Your task to perform on an android device: toggle javascript in the chrome app Image 0: 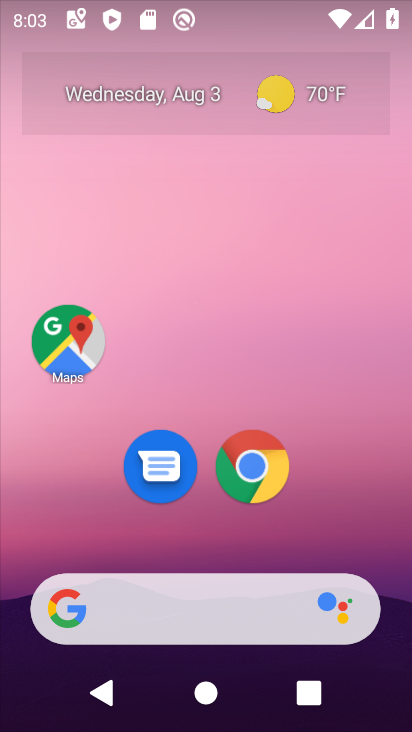
Step 0: drag from (363, 473) to (371, 44)
Your task to perform on an android device: toggle javascript in the chrome app Image 1: 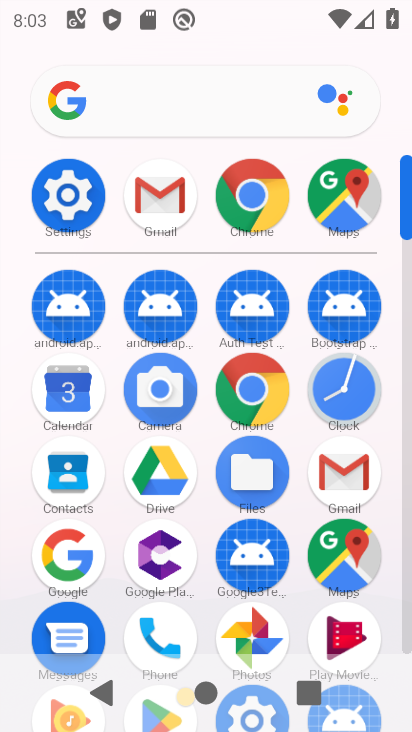
Step 1: click (249, 388)
Your task to perform on an android device: toggle javascript in the chrome app Image 2: 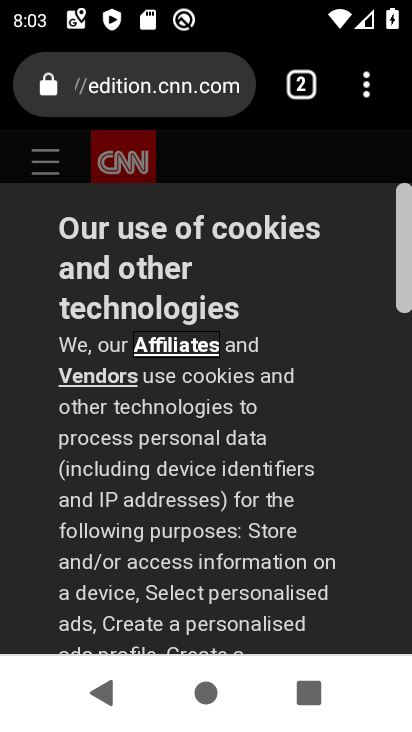
Step 2: drag from (370, 80) to (179, 507)
Your task to perform on an android device: toggle javascript in the chrome app Image 3: 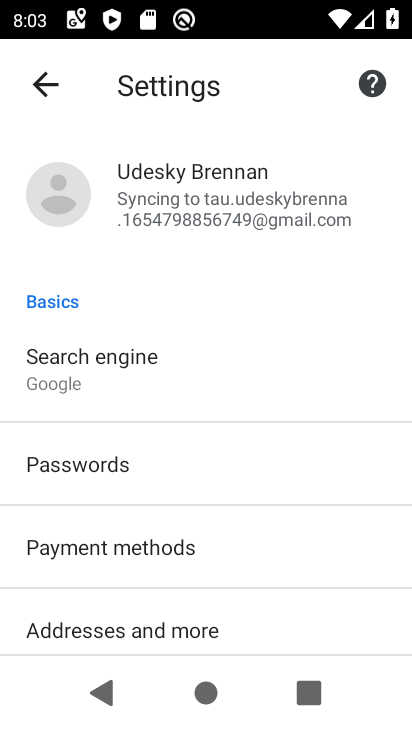
Step 3: drag from (270, 500) to (325, 63)
Your task to perform on an android device: toggle javascript in the chrome app Image 4: 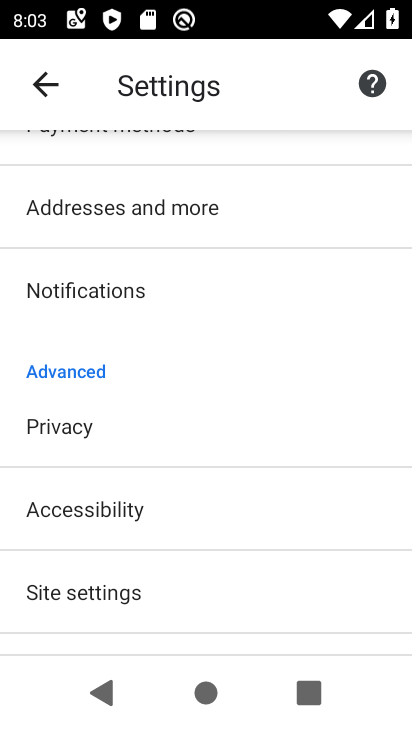
Step 4: drag from (280, 494) to (300, 278)
Your task to perform on an android device: toggle javascript in the chrome app Image 5: 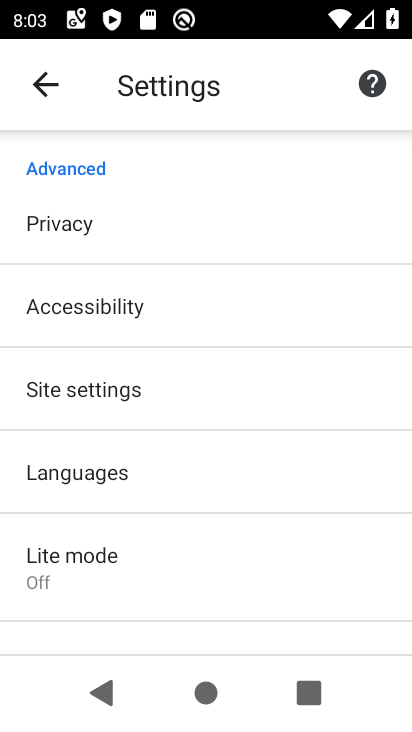
Step 5: click (114, 404)
Your task to perform on an android device: toggle javascript in the chrome app Image 6: 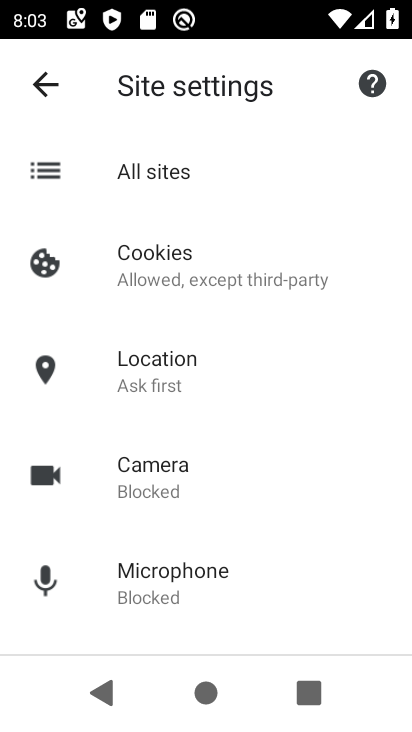
Step 6: drag from (310, 533) to (333, 272)
Your task to perform on an android device: toggle javascript in the chrome app Image 7: 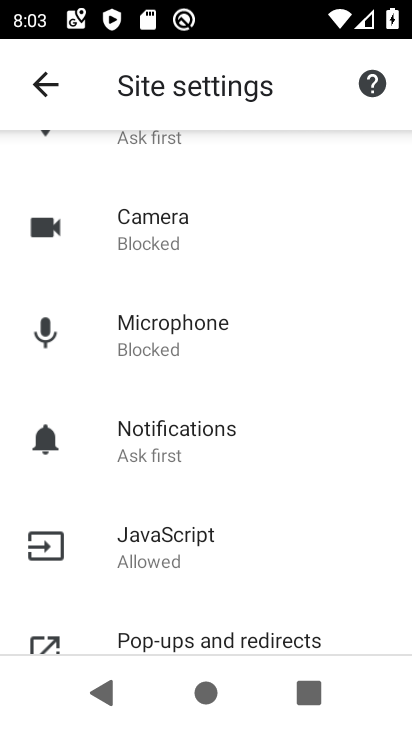
Step 7: click (157, 550)
Your task to perform on an android device: toggle javascript in the chrome app Image 8: 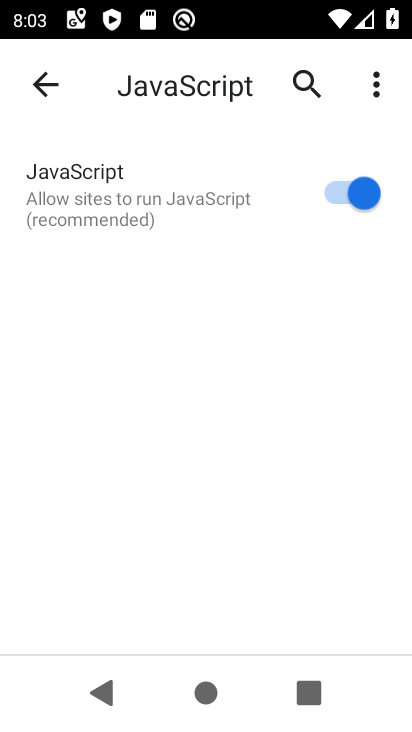
Step 8: click (343, 198)
Your task to perform on an android device: toggle javascript in the chrome app Image 9: 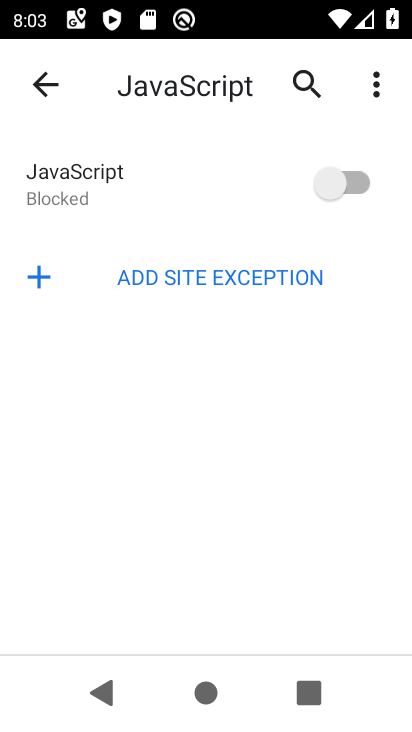
Step 9: task complete